Your task to perform on an android device: turn notification dots off Image 0: 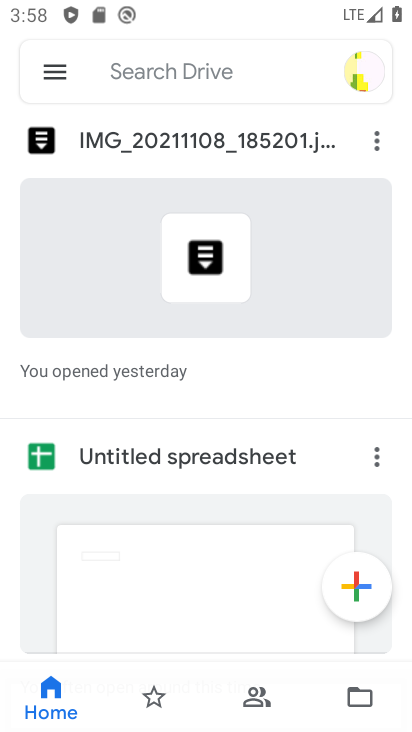
Step 0: press home button
Your task to perform on an android device: turn notification dots off Image 1: 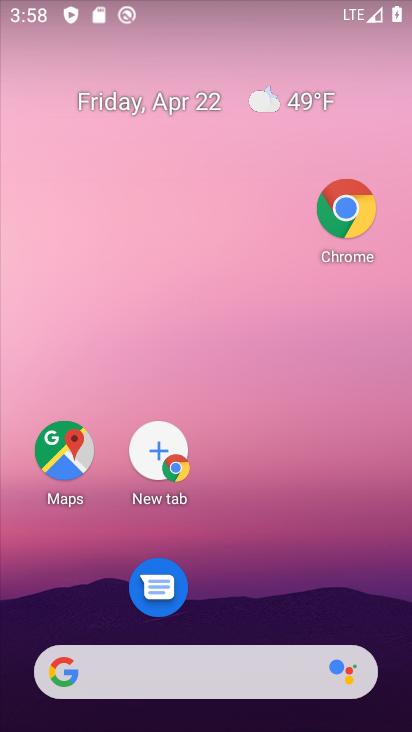
Step 1: drag from (281, 610) to (286, 326)
Your task to perform on an android device: turn notification dots off Image 2: 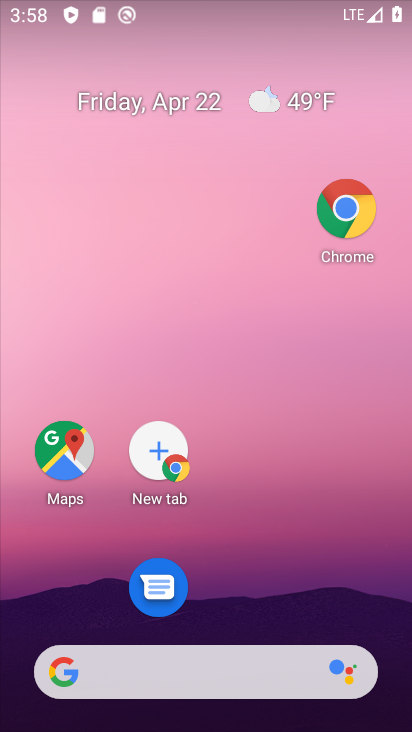
Step 2: drag from (233, 617) to (269, 174)
Your task to perform on an android device: turn notification dots off Image 3: 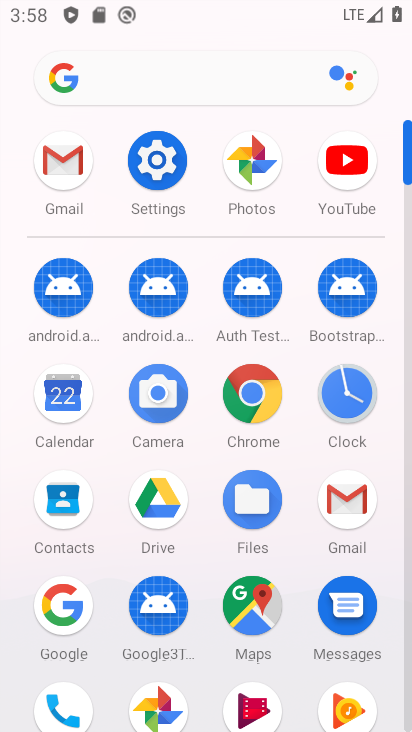
Step 3: click (133, 160)
Your task to perform on an android device: turn notification dots off Image 4: 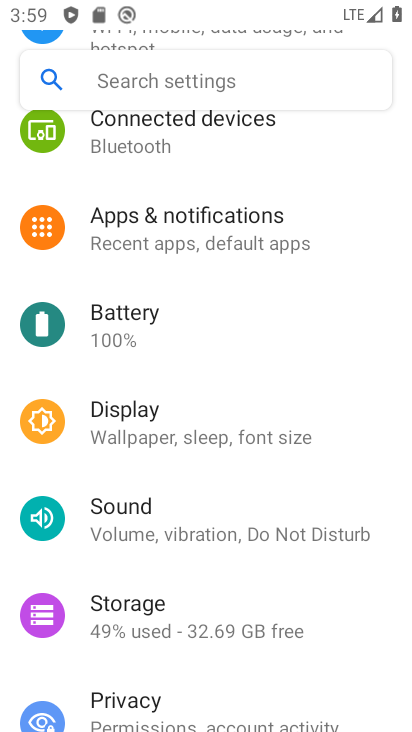
Step 4: click (128, 235)
Your task to perform on an android device: turn notification dots off Image 5: 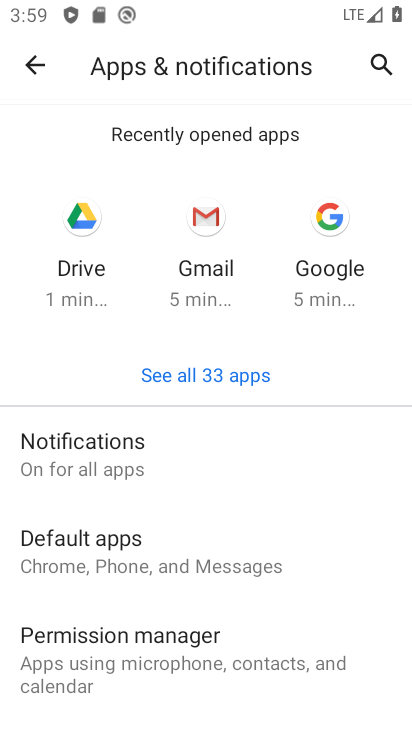
Step 5: drag from (194, 640) to (201, 149)
Your task to perform on an android device: turn notification dots off Image 6: 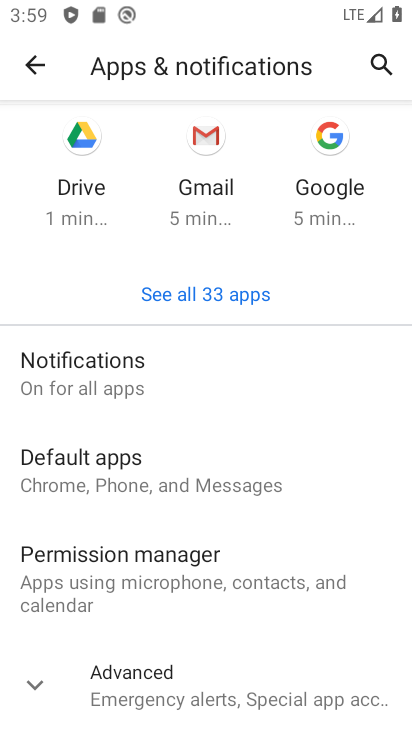
Step 6: click (205, 686)
Your task to perform on an android device: turn notification dots off Image 7: 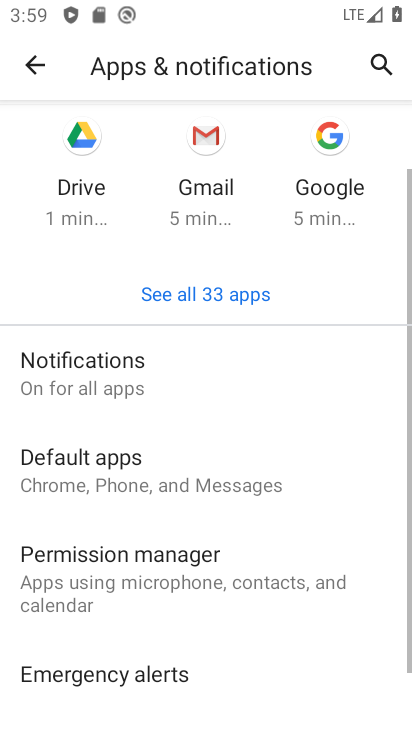
Step 7: drag from (205, 686) to (186, 126)
Your task to perform on an android device: turn notification dots off Image 8: 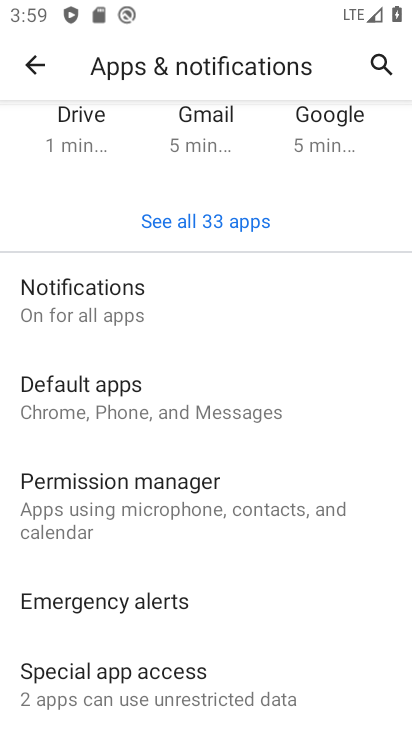
Step 8: drag from (159, 650) to (175, 180)
Your task to perform on an android device: turn notification dots off Image 9: 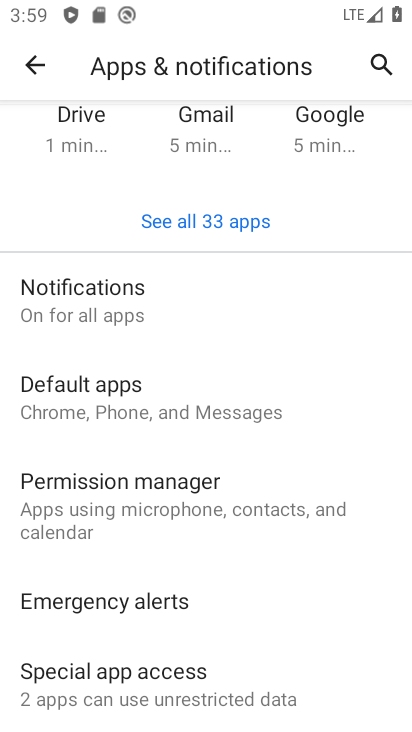
Step 9: click (214, 321)
Your task to perform on an android device: turn notification dots off Image 10: 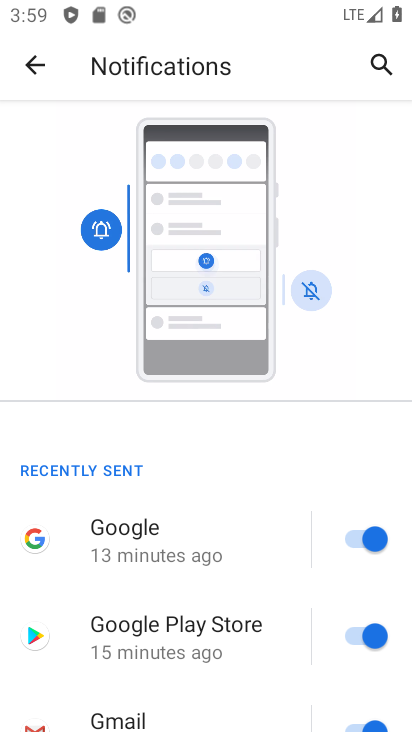
Step 10: drag from (102, 679) to (202, 150)
Your task to perform on an android device: turn notification dots off Image 11: 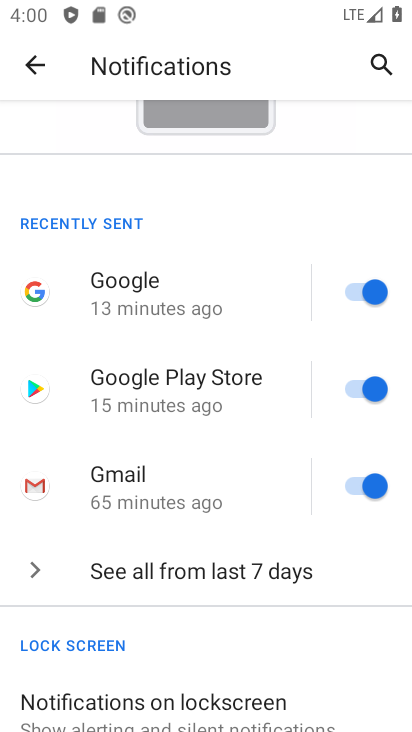
Step 11: drag from (196, 693) to (208, 182)
Your task to perform on an android device: turn notification dots off Image 12: 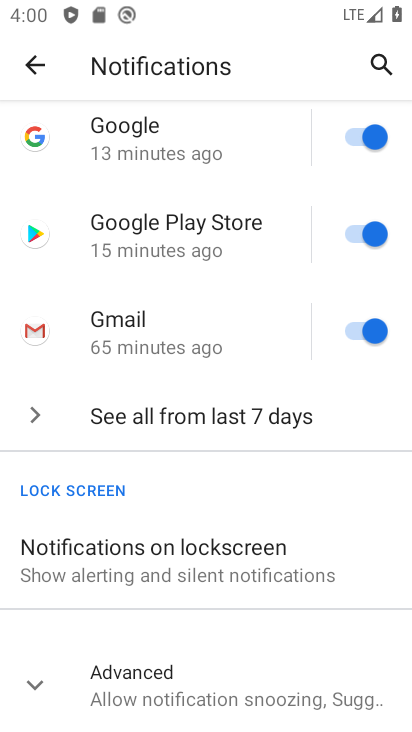
Step 12: drag from (148, 706) to (205, 307)
Your task to perform on an android device: turn notification dots off Image 13: 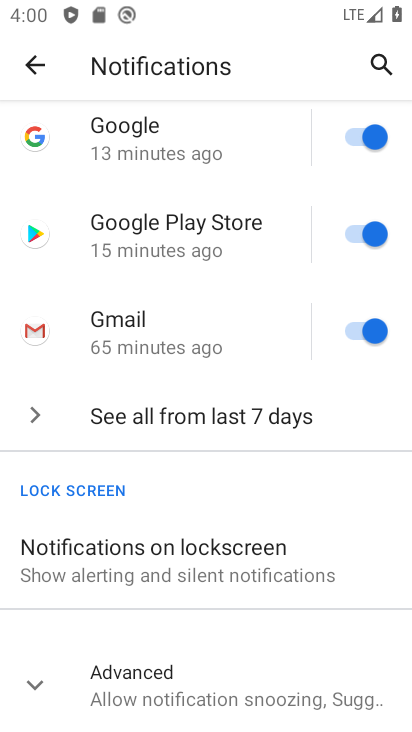
Step 13: drag from (193, 652) to (200, 280)
Your task to perform on an android device: turn notification dots off Image 14: 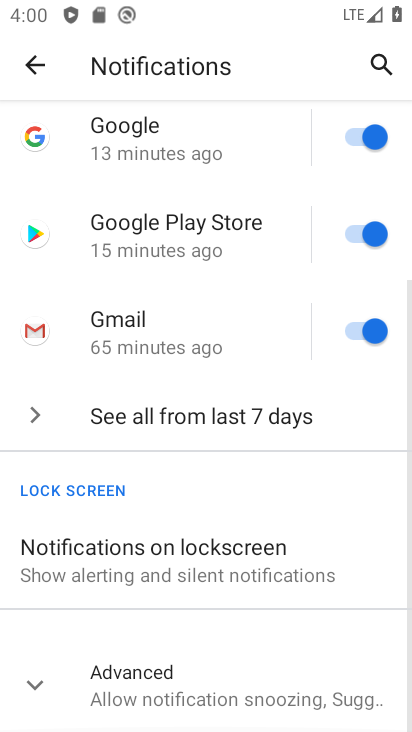
Step 14: click (228, 692)
Your task to perform on an android device: turn notification dots off Image 15: 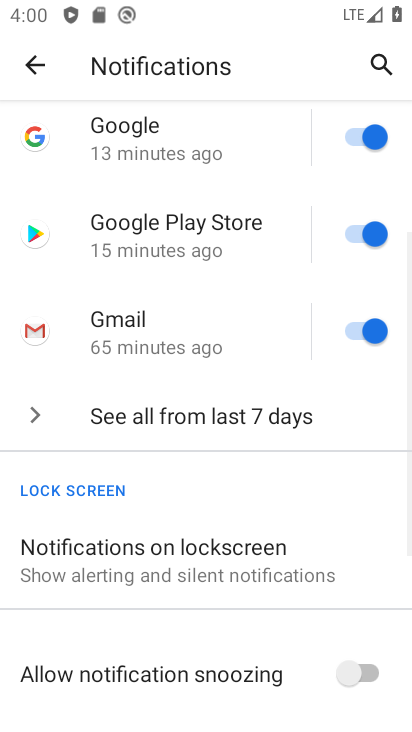
Step 15: drag from (228, 692) to (354, 191)
Your task to perform on an android device: turn notification dots off Image 16: 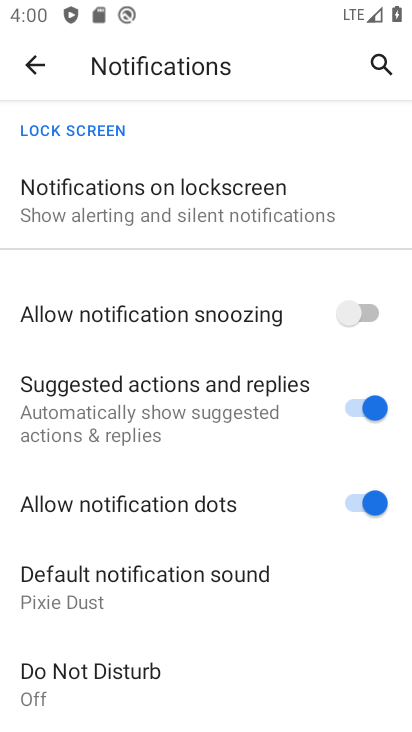
Step 16: click (354, 503)
Your task to perform on an android device: turn notification dots off Image 17: 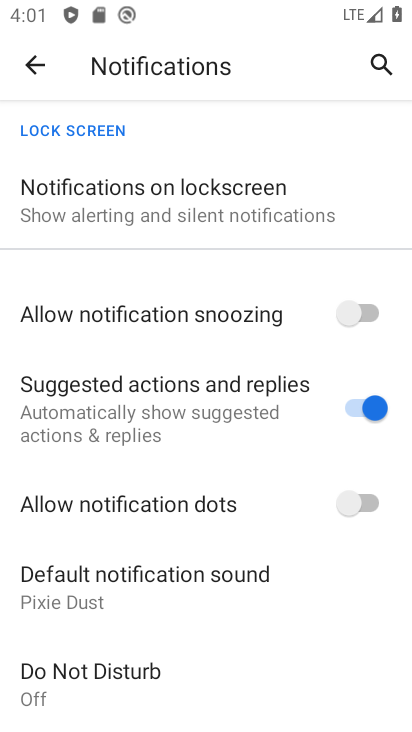
Step 17: task complete